Your task to perform on an android device: What's on my calendar tomorrow? Image 0: 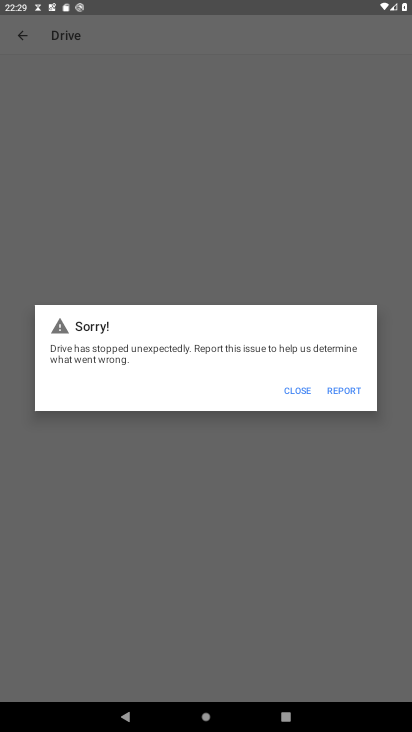
Step 0: drag from (260, 578) to (246, 35)
Your task to perform on an android device: What's on my calendar tomorrow? Image 1: 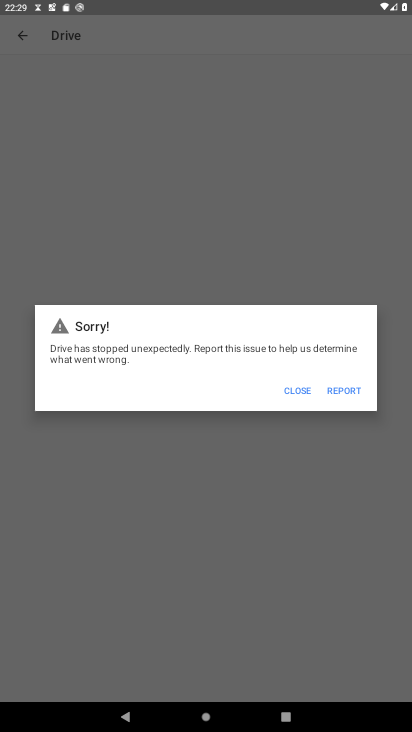
Step 1: press home button
Your task to perform on an android device: What's on my calendar tomorrow? Image 2: 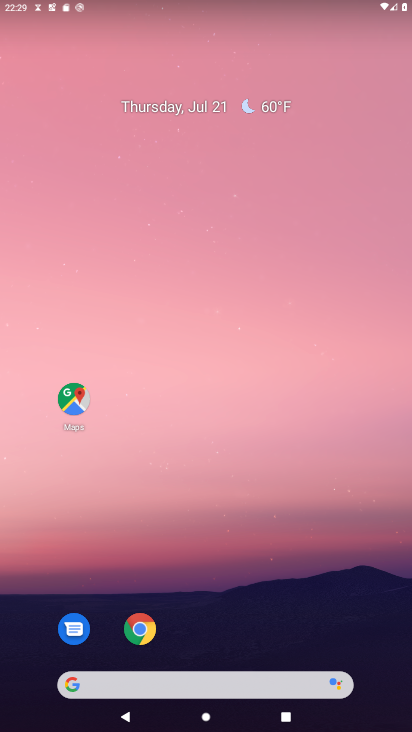
Step 2: drag from (226, 636) to (231, 206)
Your task to perform on an android device: What's on my calendar tomorrow? Image 3: 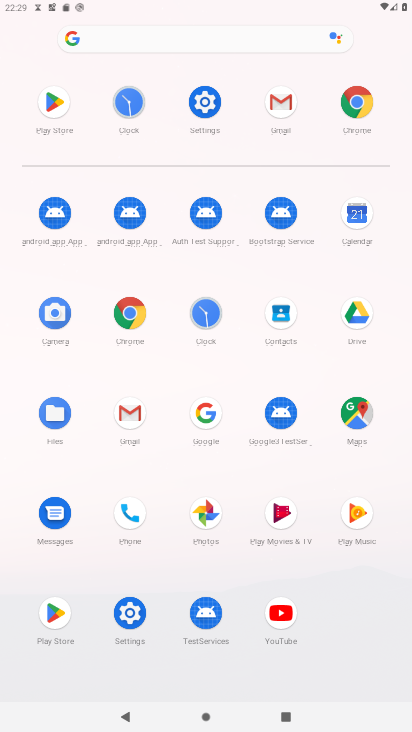
Step 3: click (351, 208)
Your task to perform on an android device: What's on my calendar tomorrow? Image 4: 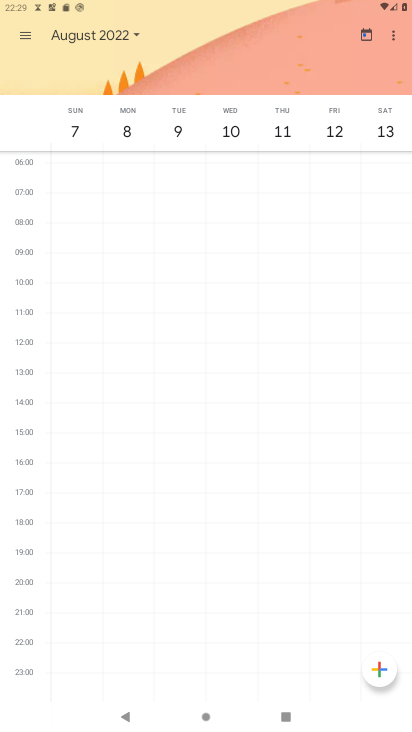
Step 4: drag from (69, 219) to (391, 239)
Your task to perform on an android device: What's on my calendar tomorrow? Image 5: 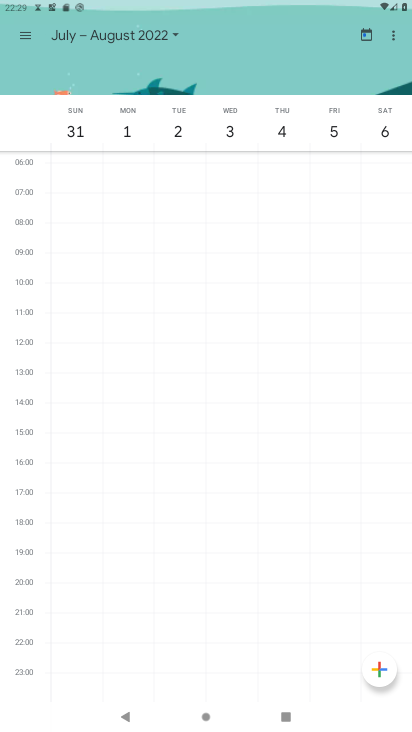
Step 5: click (17, 27)
Your task to perform on an android device: What's on my calendar tomorrow? Image 6: 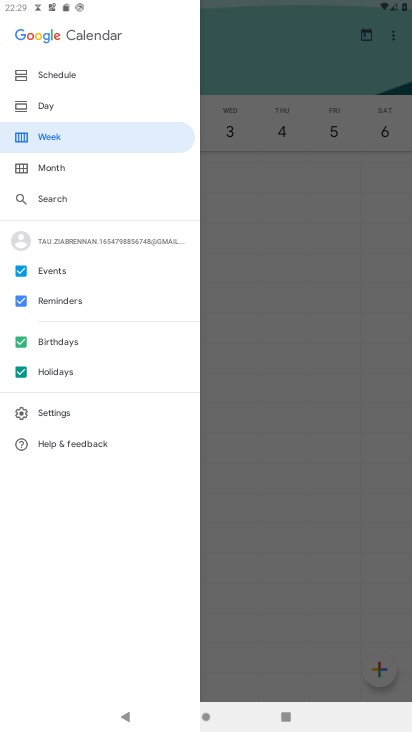
Step 6: click (49, 167)
Your task to perform on an android device: What's on my calendar tomorrow? Image 7: 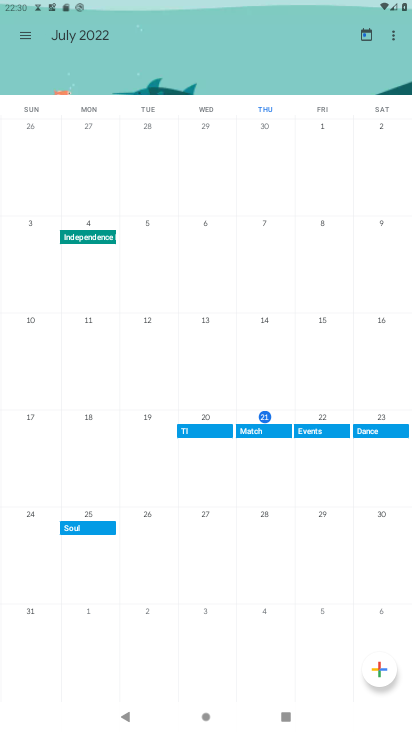
Step 7: click (378, 428)
Your task to perform on an android device: What's on my calendar tomorrow? Image 8: 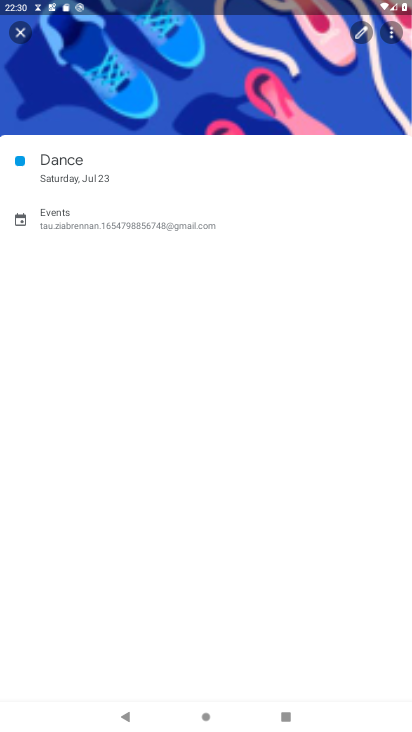
Step 8: task complete